Your task to perform on an android device: Find coffee shops on Maps Image 0: 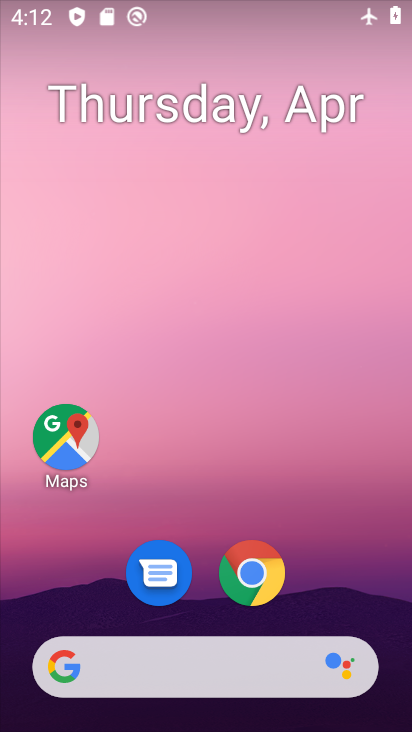
Step 0: drag from (371, 599) to (279, 120)
Your task to perform on an android device: Find coffee shops on Maps Image 1: 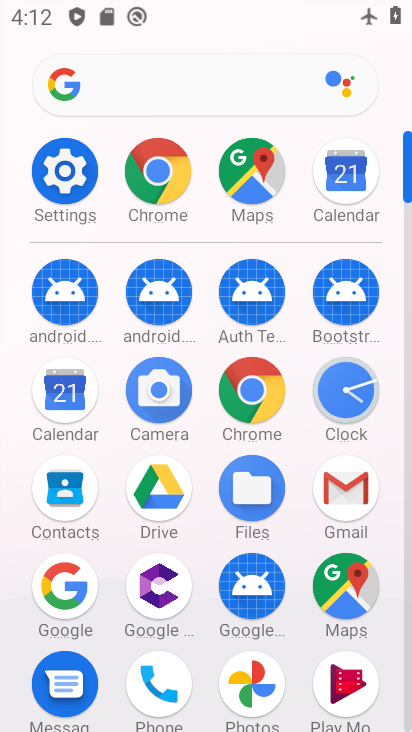
Step 1: click (345, 576)
Your task to perform on an android device: Find coffee shops on Maps Image 2: 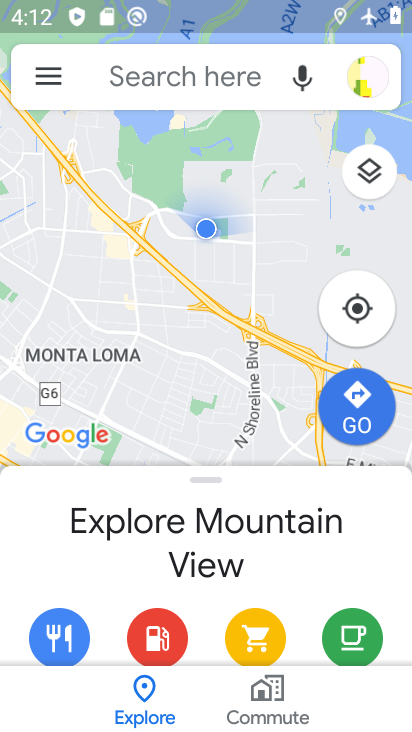
Step 2: click (188, 87)
Your task to perform on an android device: Find coffee shops on Maps Image 3: 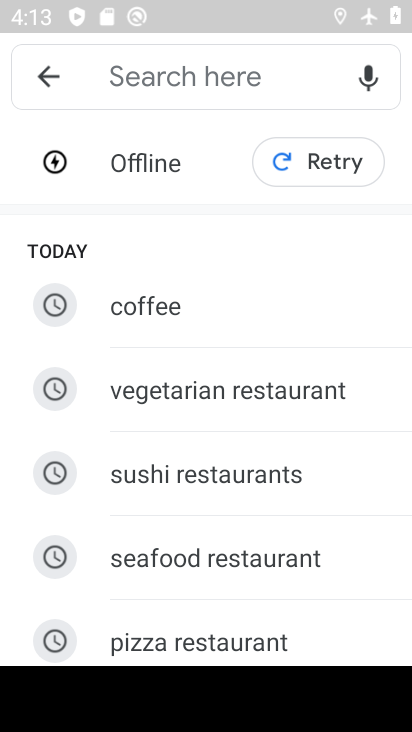
Step 3: click (215, 300)
Your task to perform on an android device: Find coffee shops on Maps Image 4: 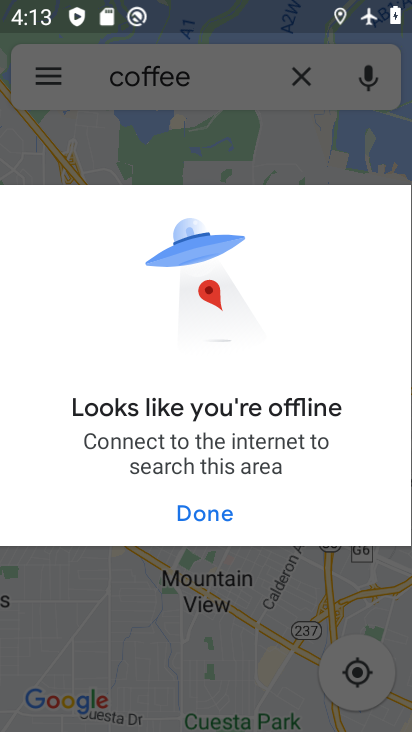
Step 4: task complete